Your task to perform on an android device: Go to wifi settings Image 0: 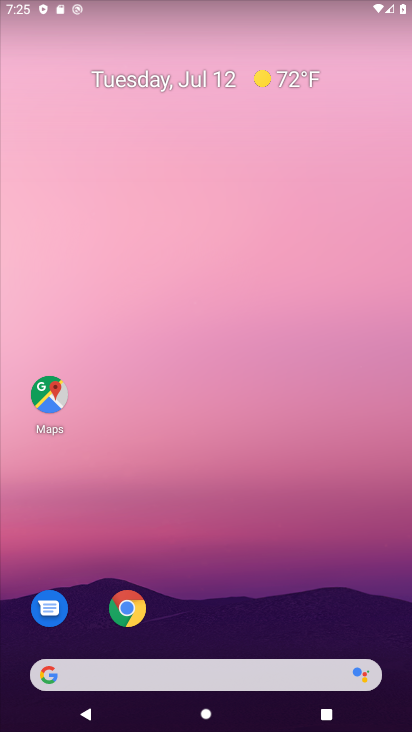
Step 0: drag from (348, 572) to (370, 52)
Your task to perform on an android device: Go to wifi settings Image 1: 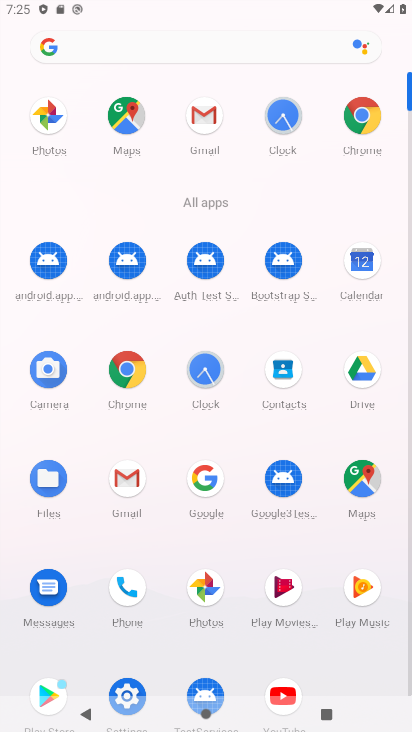
Step 1: drag from (339, 647) to (338, 395)
Your task to perform on an android device: Go to wifi settings Image 2: 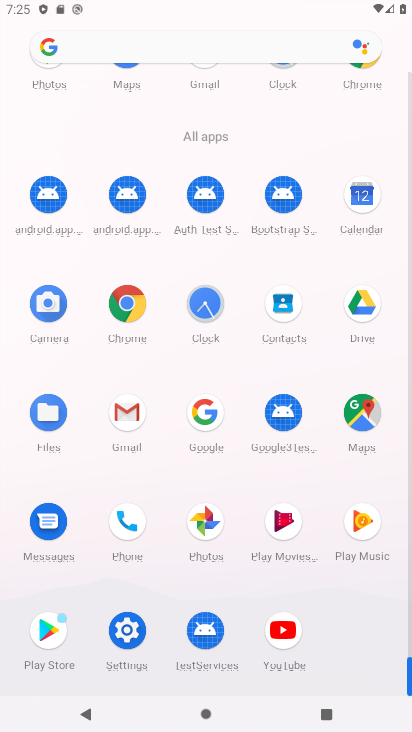
Step 2: click (135, 629)
Your task to perform on an android device: Go to wifi settings Image 3: 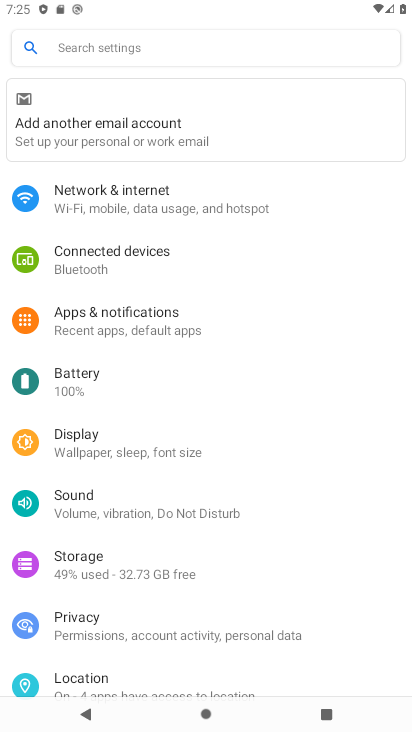
Step 3: drag from (359, 540) to (357, 409)
Your task to perform on an android device: Go to wifi settings Image 4: 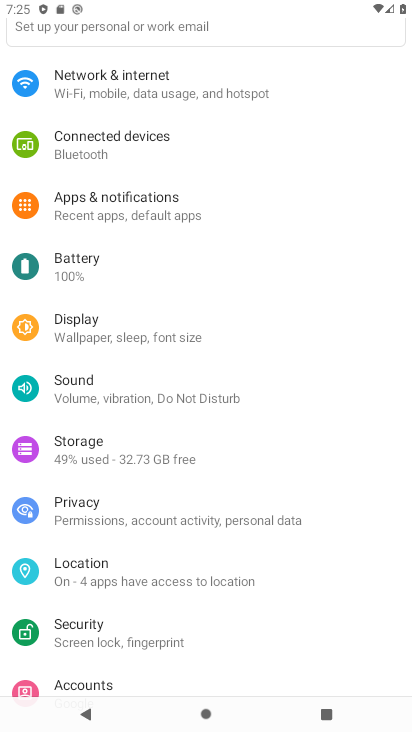
Step 4: drag from (370, 544) to (380, 430)
Your task to perform on an android device: Go to wifi settings Image 5: 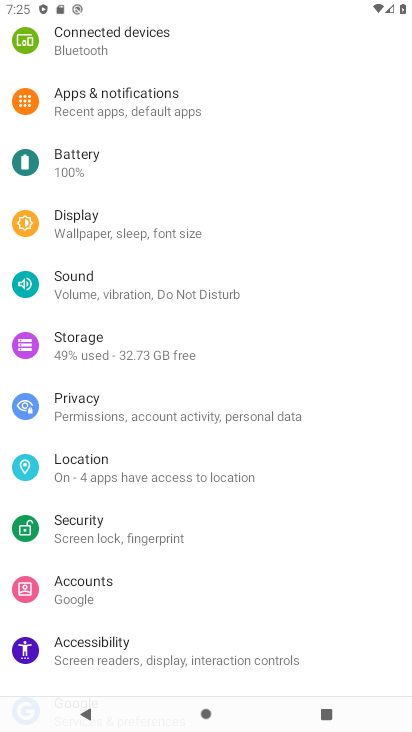
Step 5: drag from (367, 573) to (364, 413)
Your task to perform on an android device: Go to wifi settings Image 6: 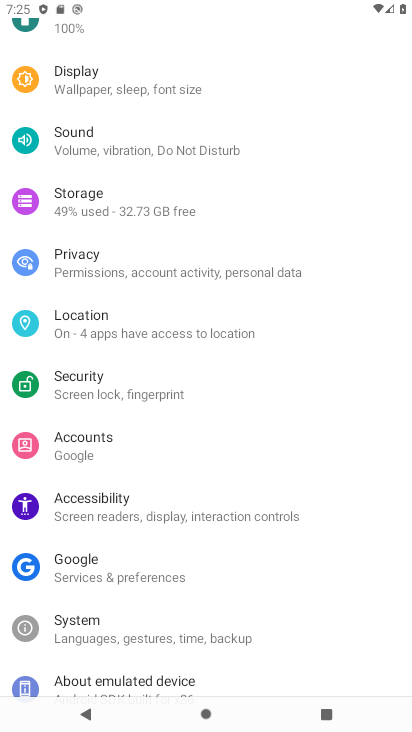
Step 6: drag from (354, 557) to (369, 385)
Your task to perform on an android device: Go to wifi settings Image 7: 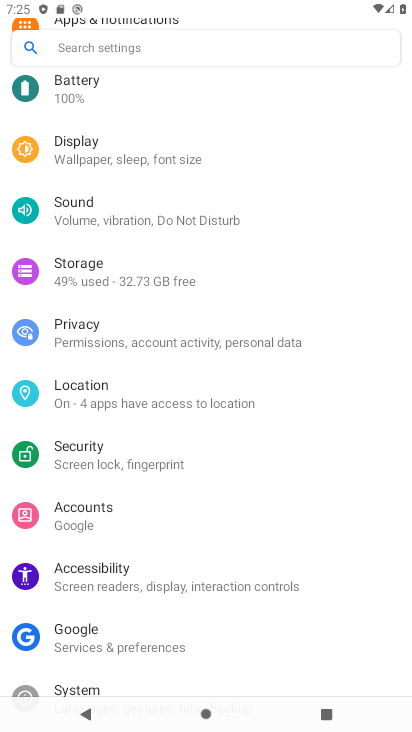
Step 7: drag from (369, 294) to (370, 392)
Your task to perform on an android device: Go to wifi settings Image 8: 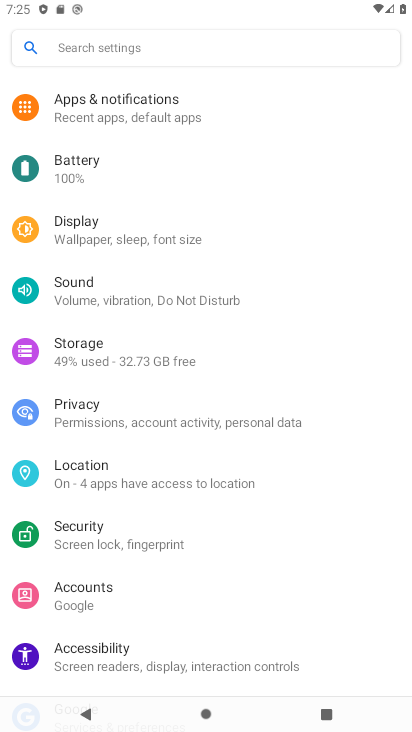
Step 8: drag from (373, 301) to (374, 416)
Your task to perform on an android device: Go to wifi settings Image 9: 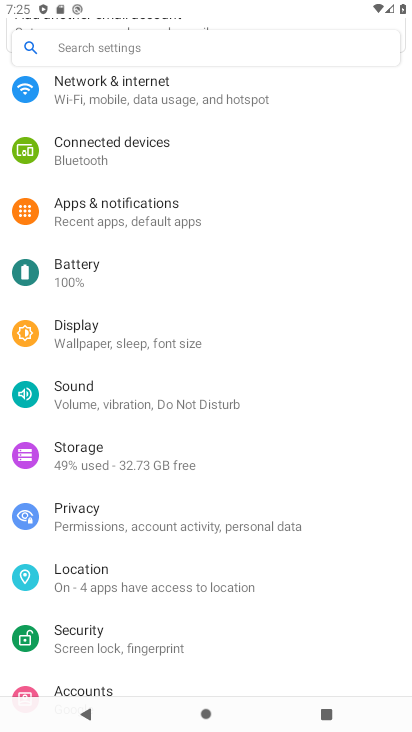
Step 9: drag from (376, 290) to (376, 390)
Your task to perform on an android device: Go to wifi settings Image 10: 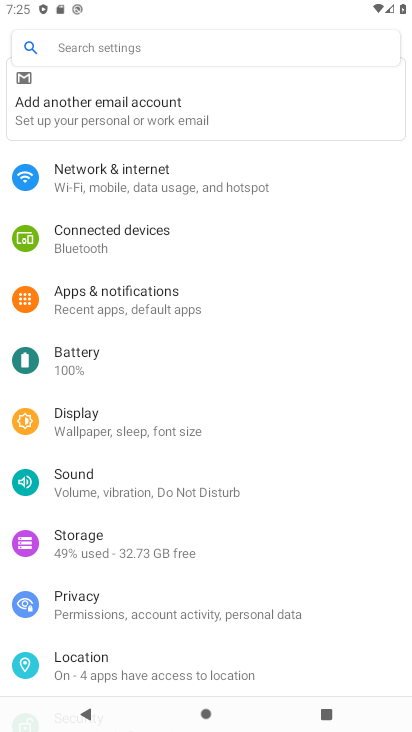
Step 10: drag from (376, 268) to (377, 381)
Your task to perform on an android device: Go to wifi settings Image 11: 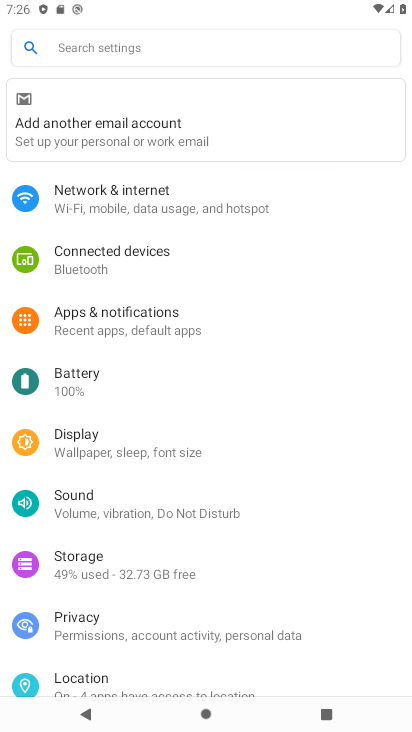
Step 11: click (285, 198)
Your task to perform on an android device: Go to wifi settings Image 12: 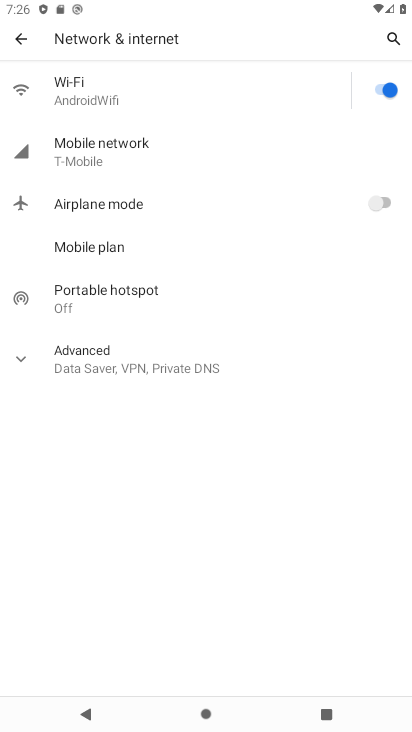
Step 12: click (105, 85)
Your task to perform on an android device: Go to wifi settings Image 13: 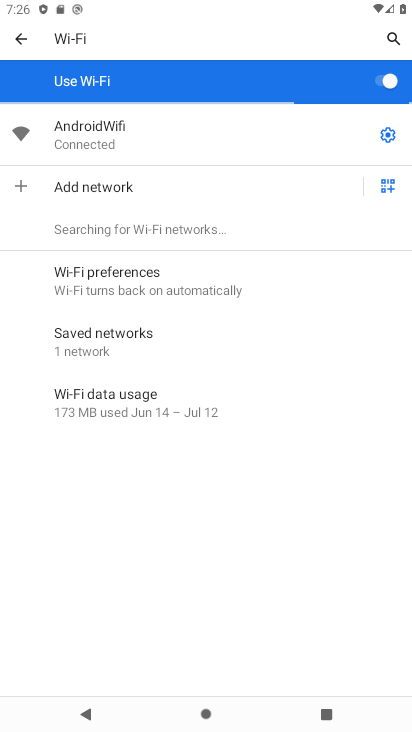
Step 13: task complete